Your task to perform on an android device: Go to eBay Image 0: 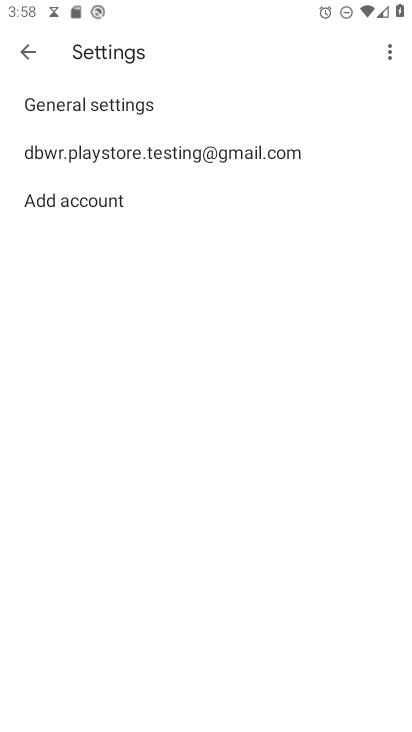
Step 0: press home button
Your task to perform on an android device: Go to eBay Image 1: 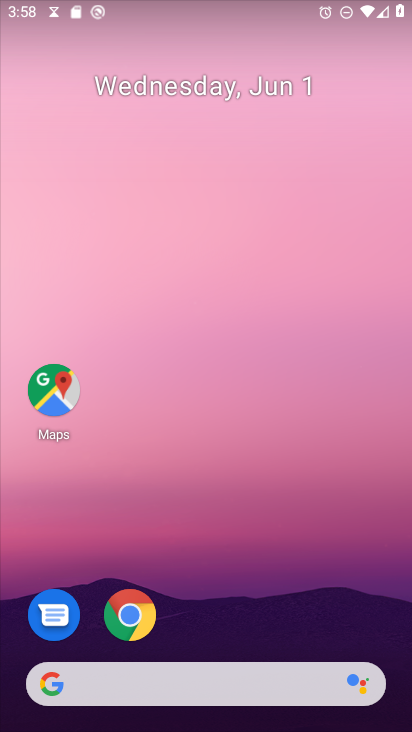
Step 1: click (124, 610)
Your task to perform on an android device: Go to eBay Image 2: 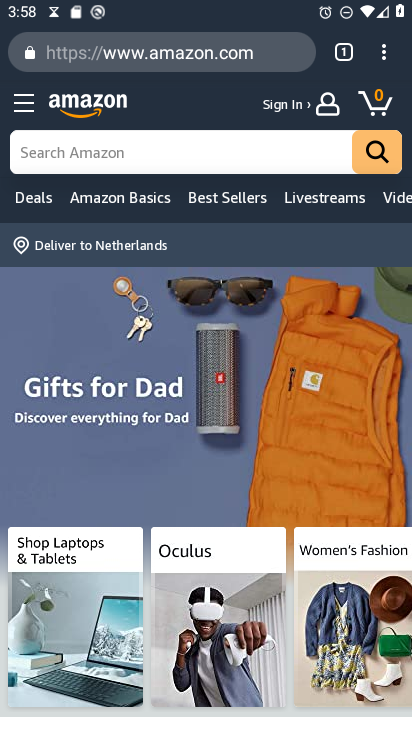
Step 2: click (334, 46)
Your task to perform on an android device: Go to eBay Image 3: 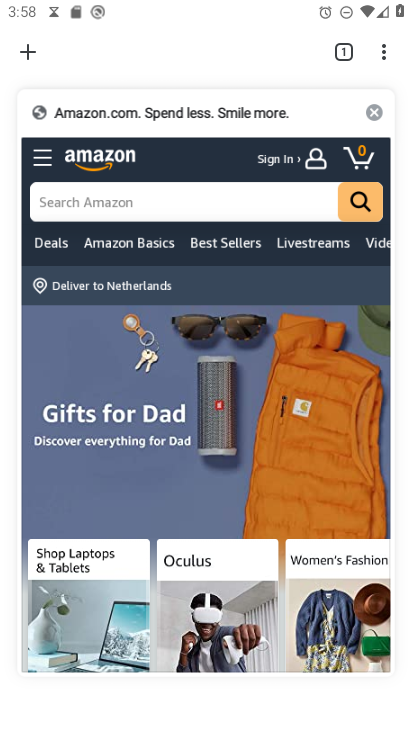
Step 3: click (372, 110)
Your task to perform on an android device: Go to eBay Image 4: 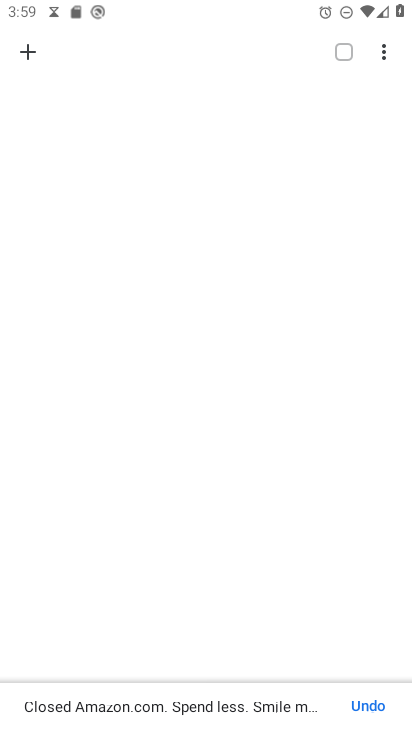
Step 4: click (24, 51)
Your task to perform on an android device: Go to eBay Image 5: 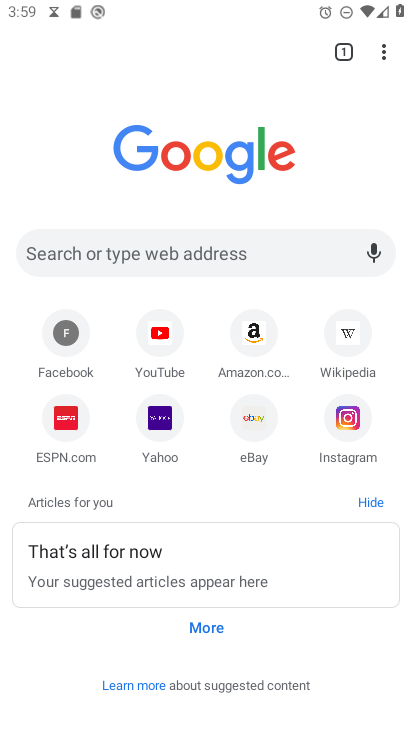
Step 5: click (248, 413)
Your task to perform on an android device: Go to eBay Image 6: 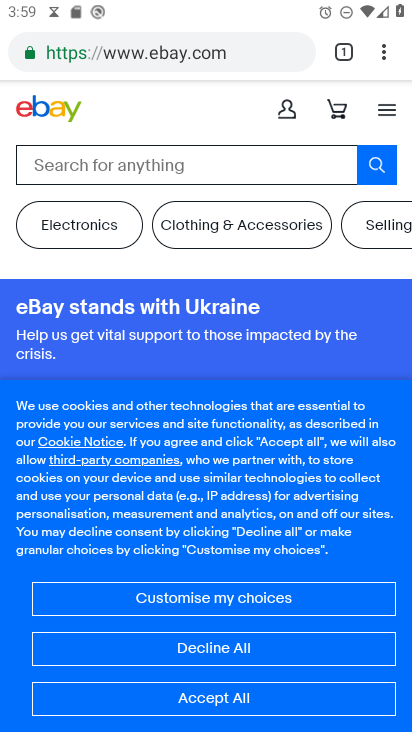
Step 6: click (218, 697)
Your task to perform on an android device: Go to eBay Image 7: 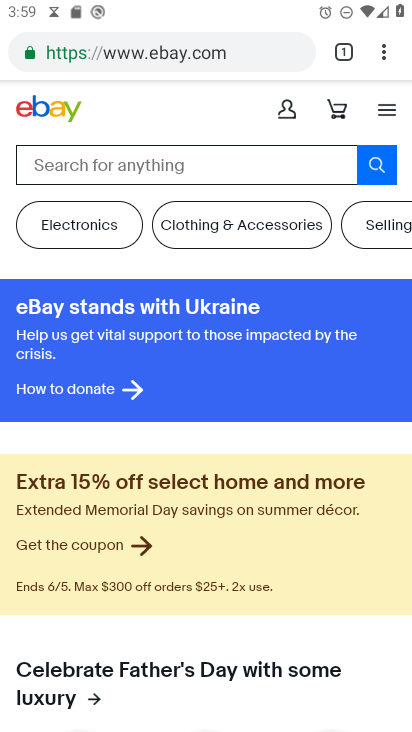
Step 7: task complete